Your task to perform on an android device: Open Youtube and go to "Your channel" Image 0: 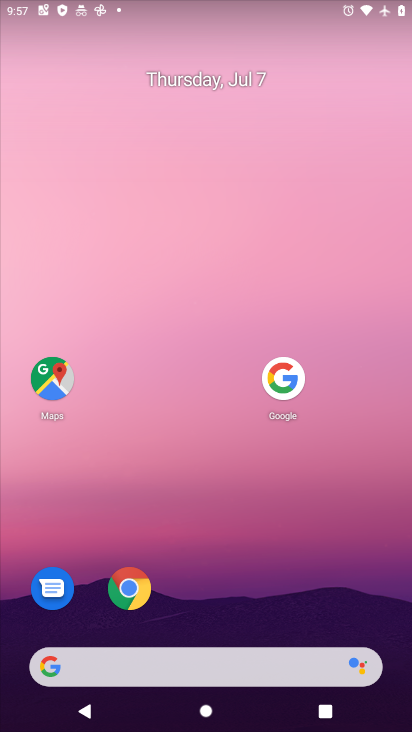
Step 0: drag from (221, 677) to (313, 233)
Your task to perform on an android device: Open Youtube and go to "Your channel" Image 1: 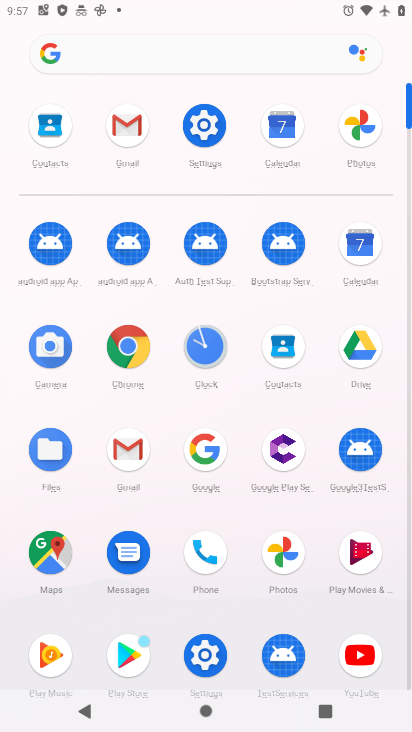
Step 1: click (360, 657)
Your task to perform on an android device: Open Youtube and go to "Your channel" Image 2: 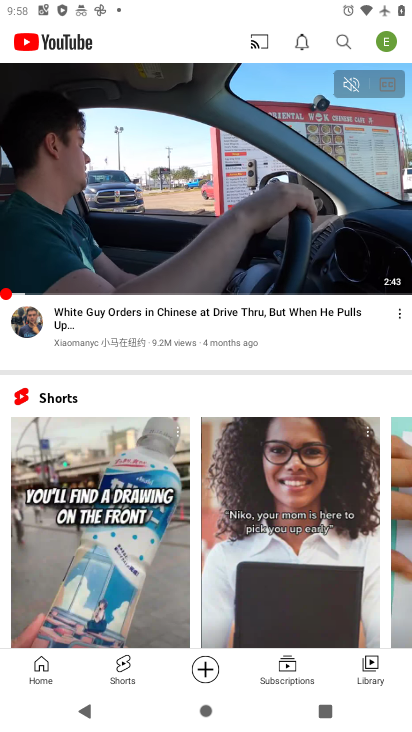
Step 2: click (382, 39)
Your task to perform on an android device: Open Youtube and go to "Your channel" Image 3: 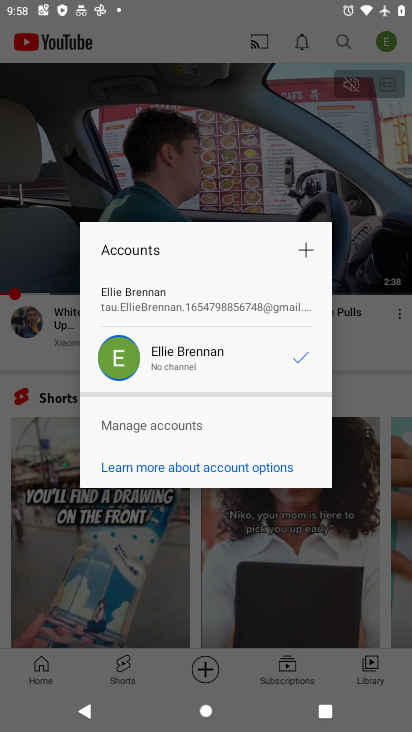
Step 3: click (381, 44)
Your task to perform on an android device: Open Youtube and go to "Your channel" Image 4: 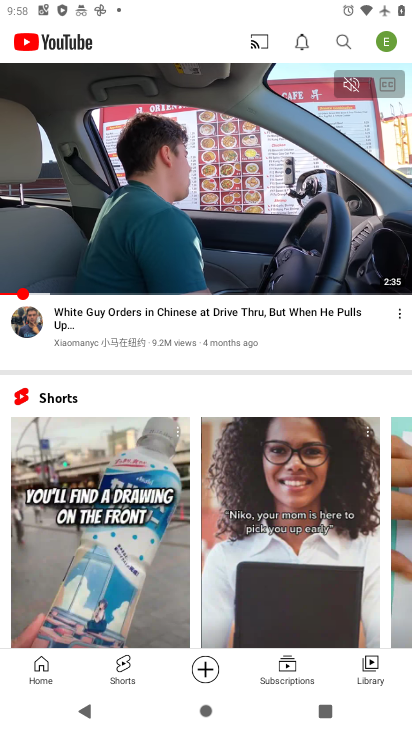
Step 4: click (389, 41)
Your task to perform on an android device: Open Youtube and go to "Your channel" Image 5: 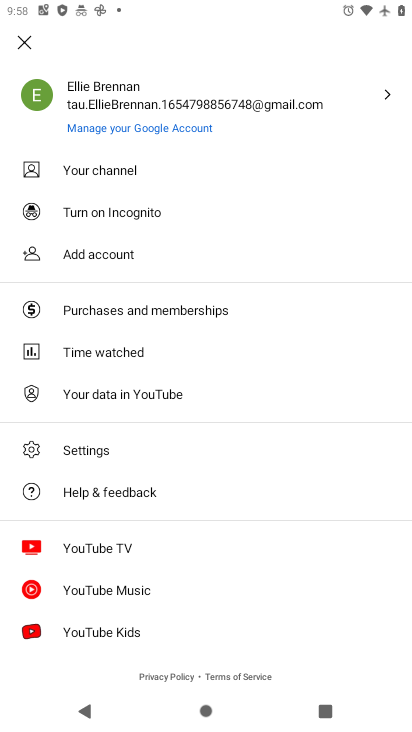
Step 5: click (97, 162)
Your task to perform on an android device: Open Youtube and go to "Your channel" Image 6: 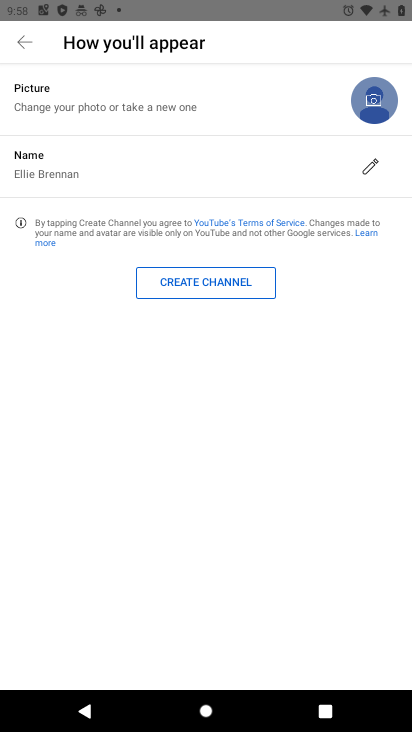
Step 6: task complete